Your task to perform on an android device: turn off location history Image 0: 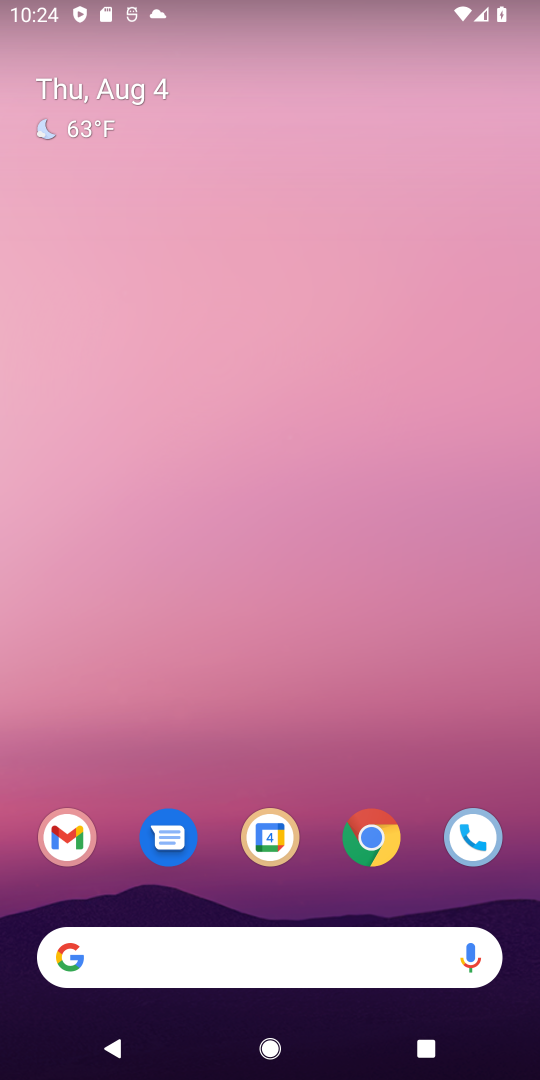
Step 0: drag from (315, 881) to (362, 65)
Your task to perform on an android device: turn off location history Image 1: 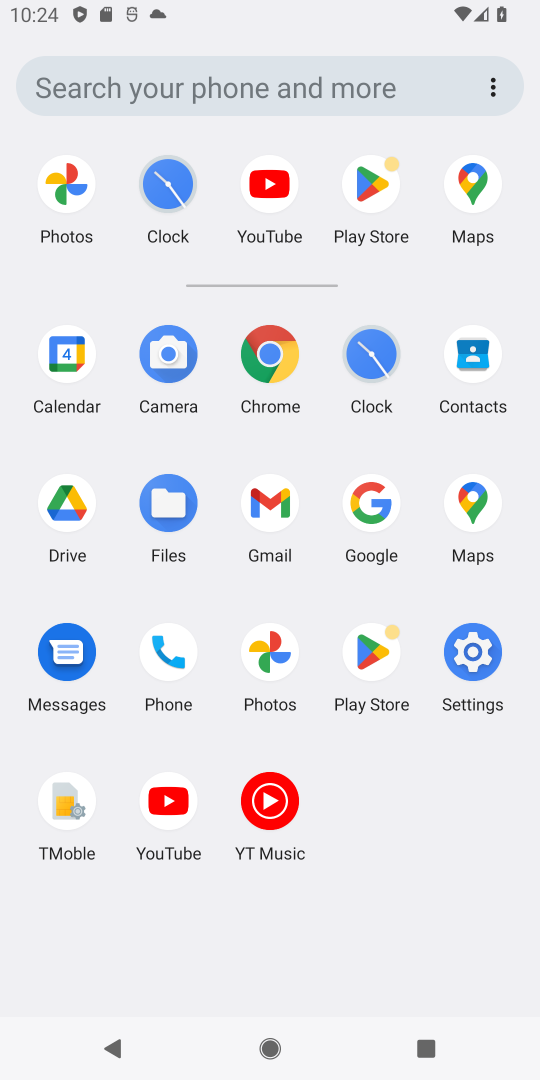
Step 1: click (484, 646)
Your task to perform on an android device: turn off location history Image 2: 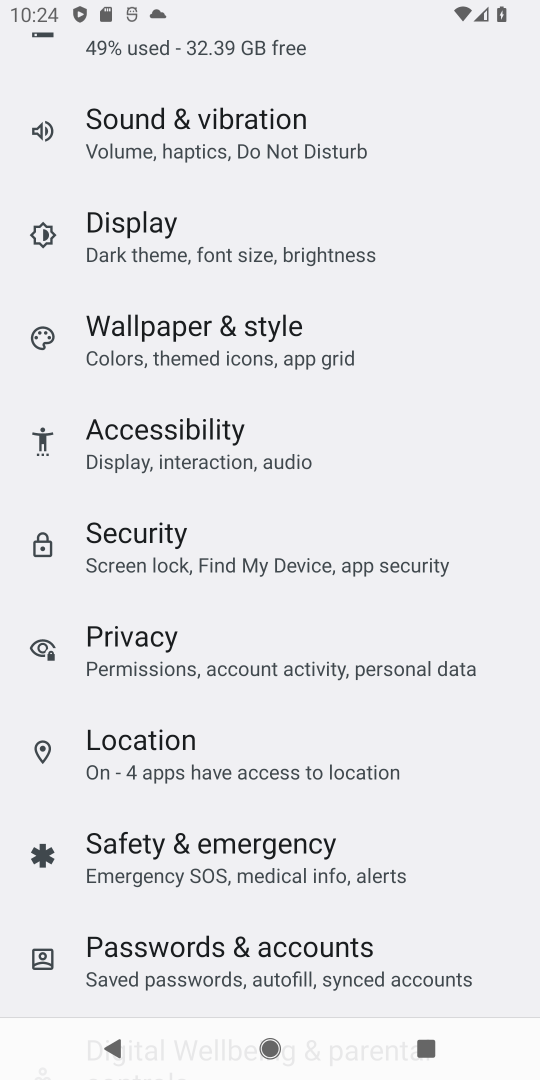
Step 2: click (220, 756)
Your task to perform on an android device: turn off location history Image 3: 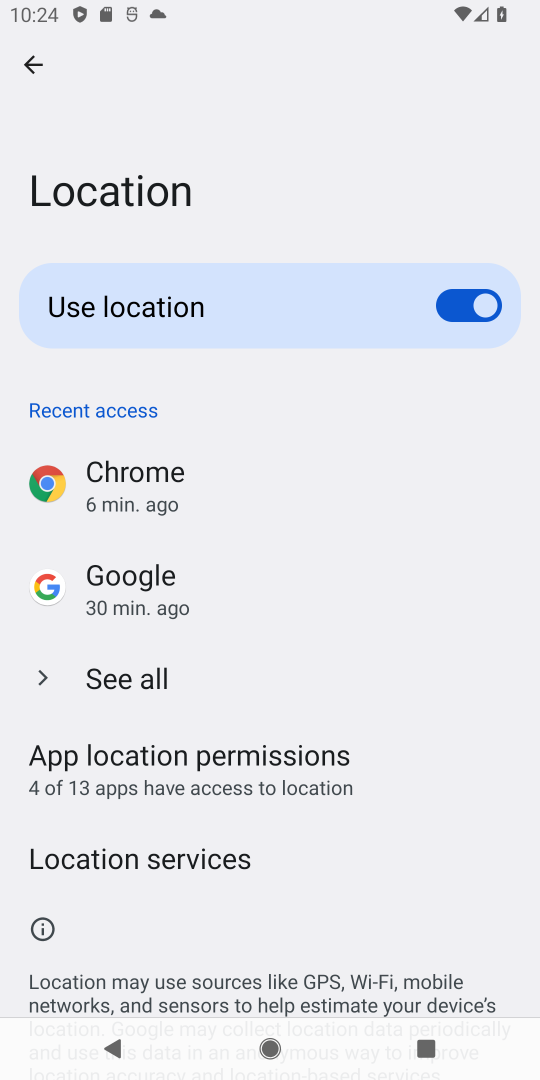
Step 3: click (176, 855)
Your task to perform on an android device: turn off location history Image 4: 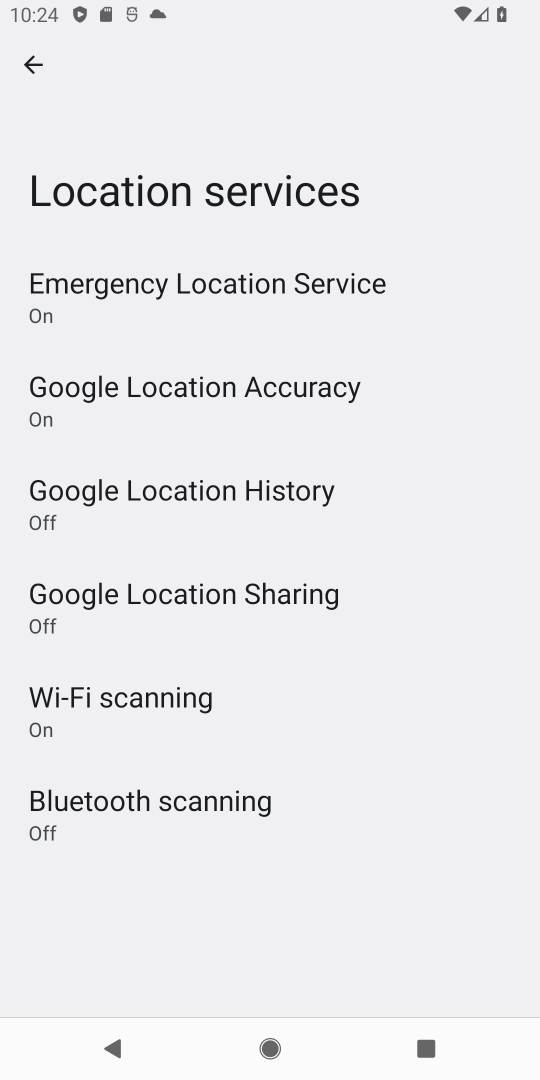
Step 4: click (271, 495)
Your task to perform on an android device: turn off location history Image 5: 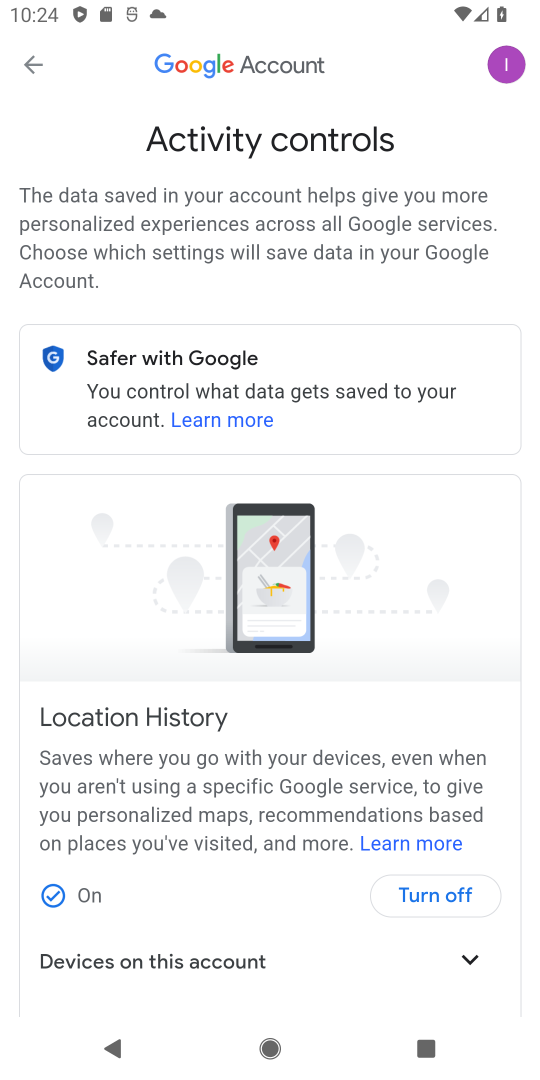
Step 5: click (442, 902)
Your task to perform on an android device: turn off location history Image 6: 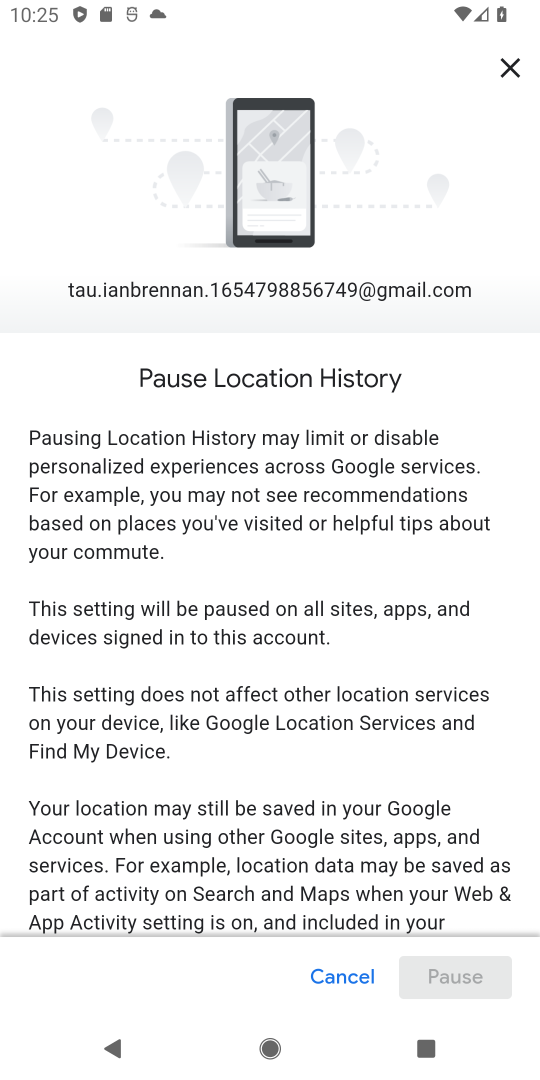
Step 6: drag from (261, 909) to (305, 170)
Your task to perform on an android device: turn off location history Image 7: 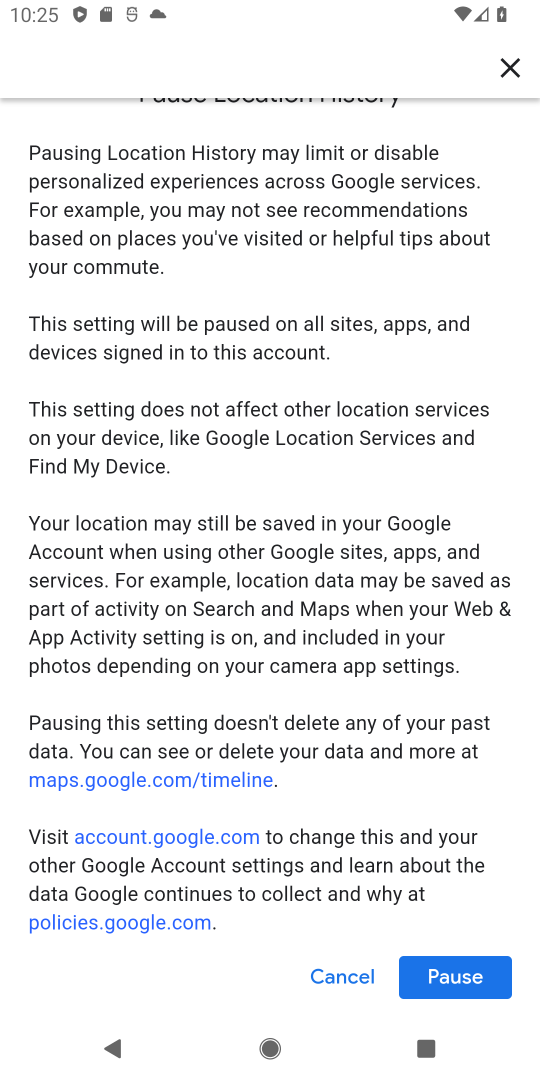
Step 7: click (444, 963)
Your task to perform on an android device: turn off location history Image 8: 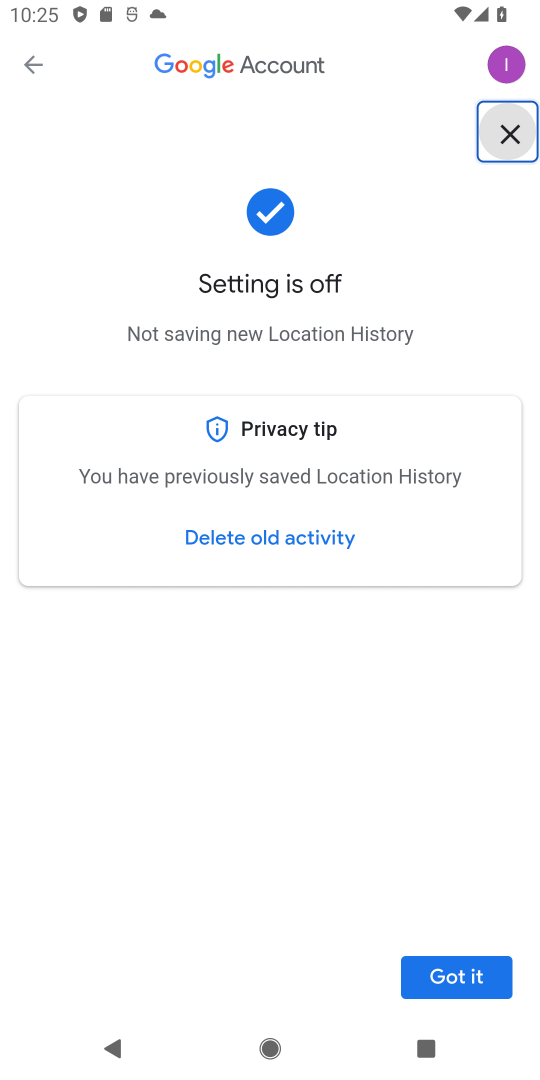
Step 8: click (455, 970)
Your task to perform on an android device: turn off location history Image 9: 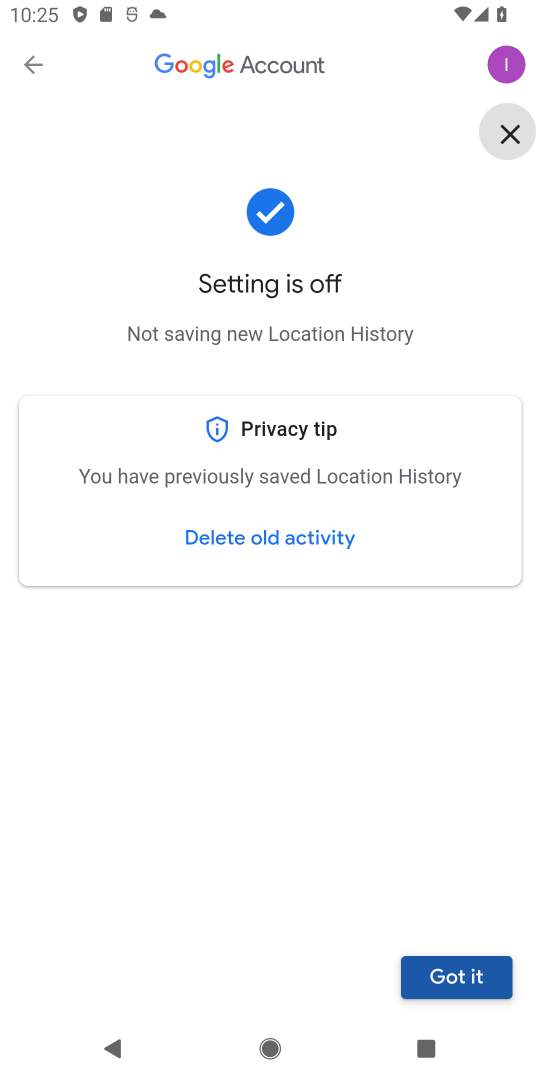
Step 9: task complete